Your task to perform on an android device: turn off airplane mode Image 0: 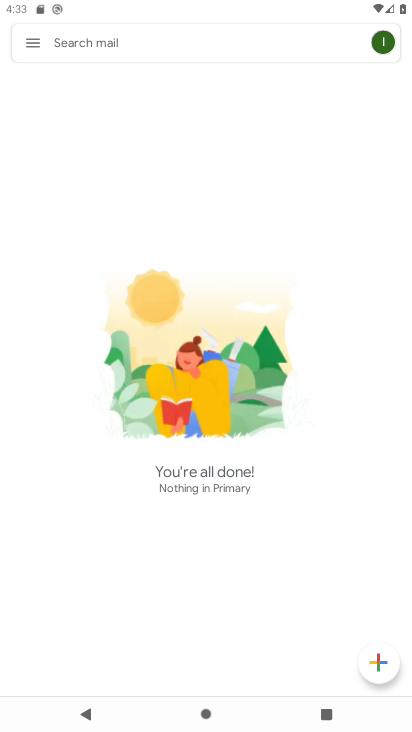
Step 0: press home button
Your task to perform on an android device: turn off airplane mode Image 1: 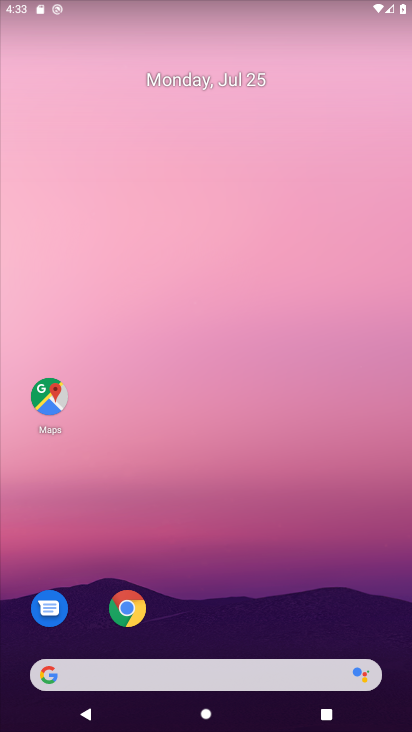
Step 1: drag from (193, 620) to (188, 79)
Your task to perform on an android device: turn off airplane mode Image 2: 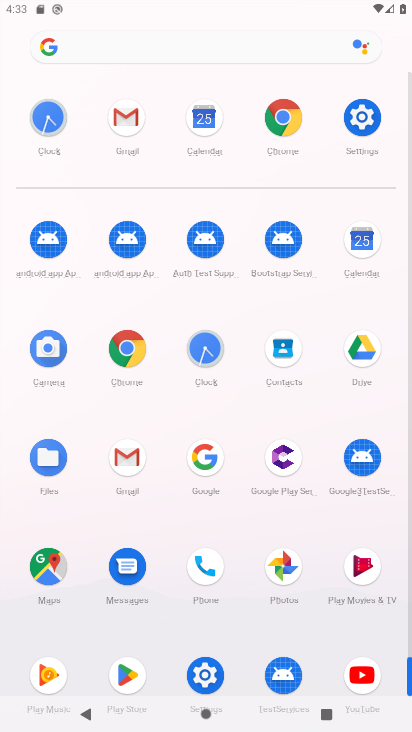
Step 2: click (367, 141)
Your task to perform on an android device: turn off airplane mode Image 3: 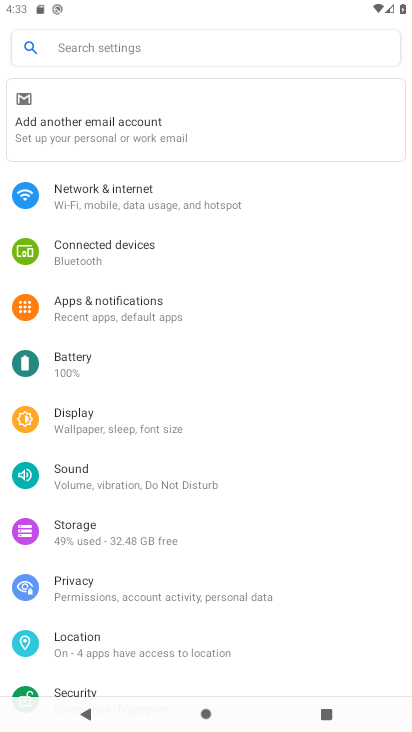
Step 3: click (165, 204)
Your task to perform on an android device: turn off airplane mode Image 4: 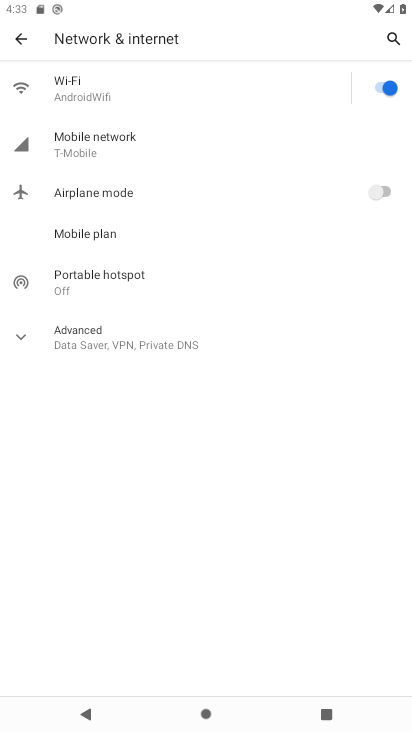
Step 4: task complete